Your task to perform on an android device: remove spam from my inbox in the gmail app Image 0: 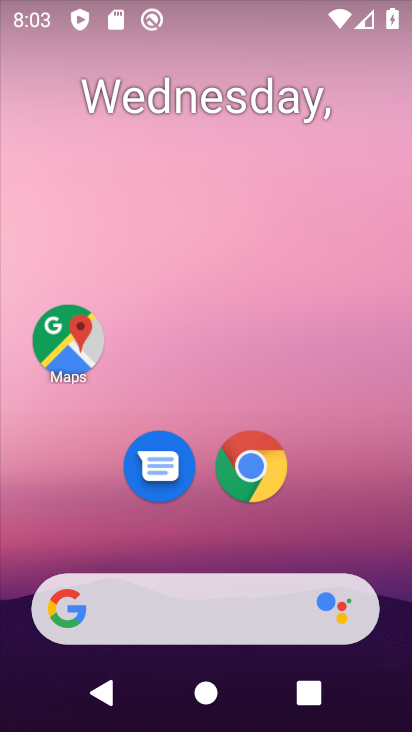
Step 0: drag from (201, 529) to (287, 0)
Your task to perform on an android device: remove spam from my inbox in the gmail app Image 1: 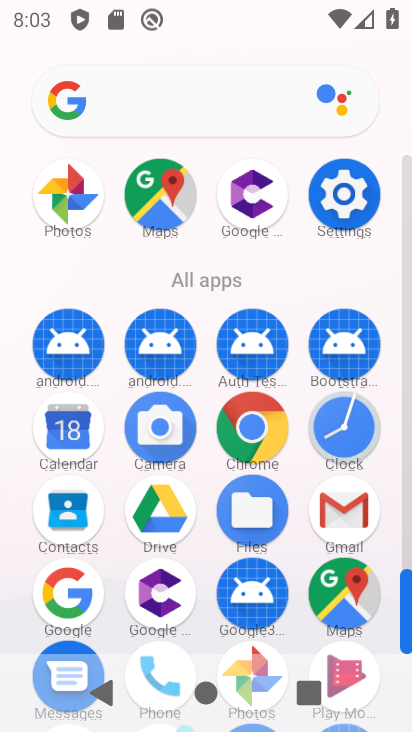
Step 1: click (355, 517)
Your task to perform on an android device: remove spam from my inbox in the gmail app Image 2: 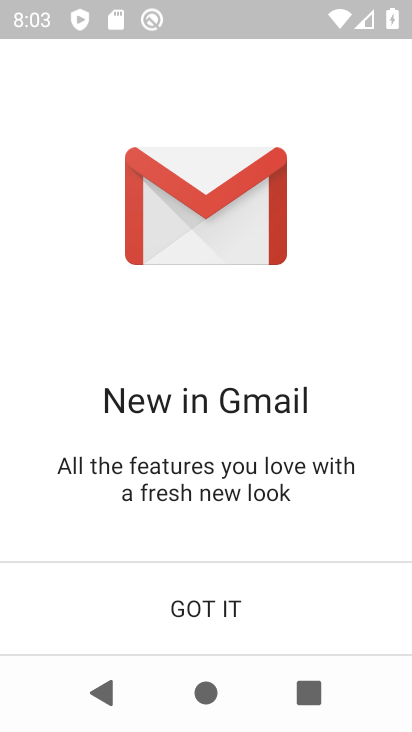
Step 2: click (204, 594)
Your task to perform on an android device: remove spam from my inbox in the gmail app Image 3: 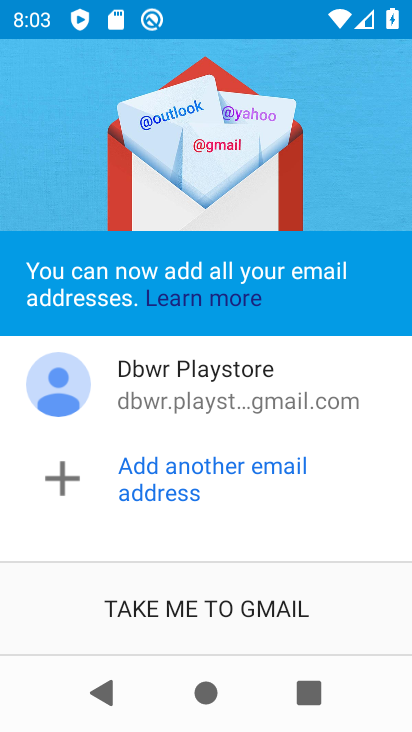
Step 3: click (204, 594)
Your task to perform on an android device: remove spam from my inbox in the gmail app Image 4: 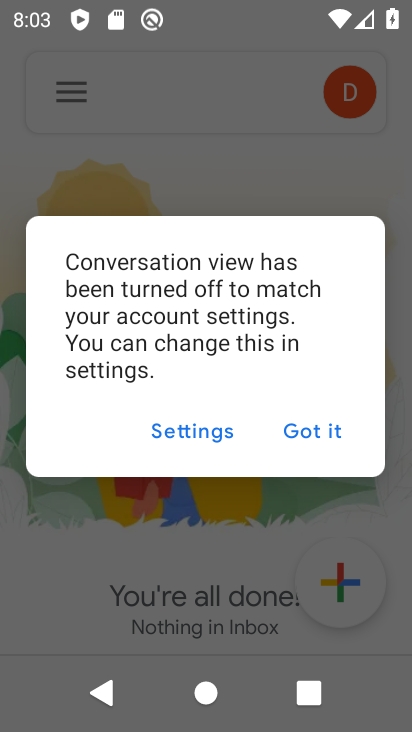
Step 4: click (315, 429)
Your task to perform on an android device: remove spam from my inbox in the gmail app Image 5: 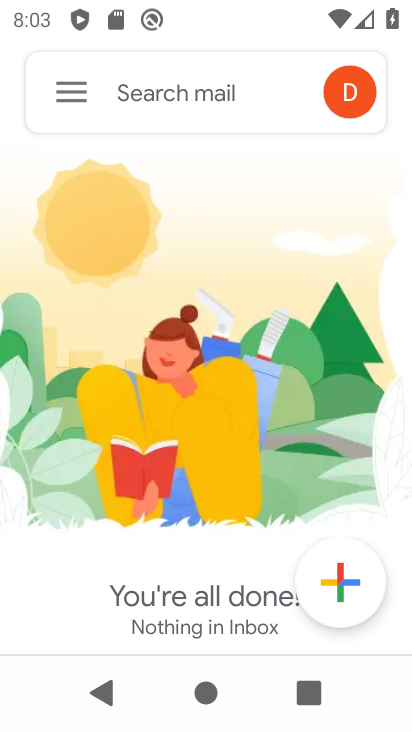
Step 5: click (72, 95)
Your task to perform on an android device: remove spam from my inbox in the gmail app Image 6: 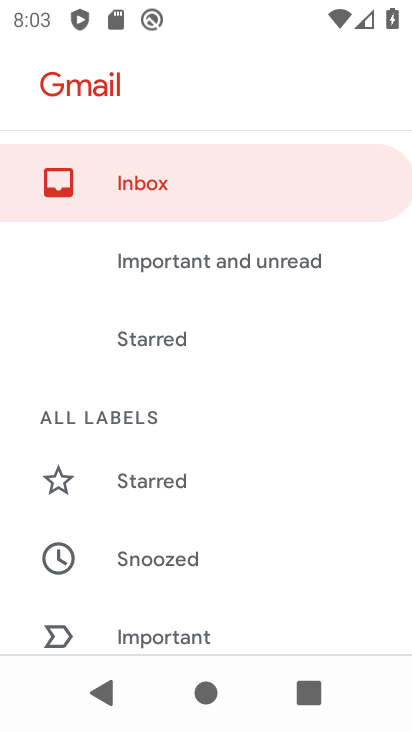
Step 6: drag from (146, 532) to (220, 173)
Your task to perform on an android device: remove spam from my inbox in the gmail app Image 7: 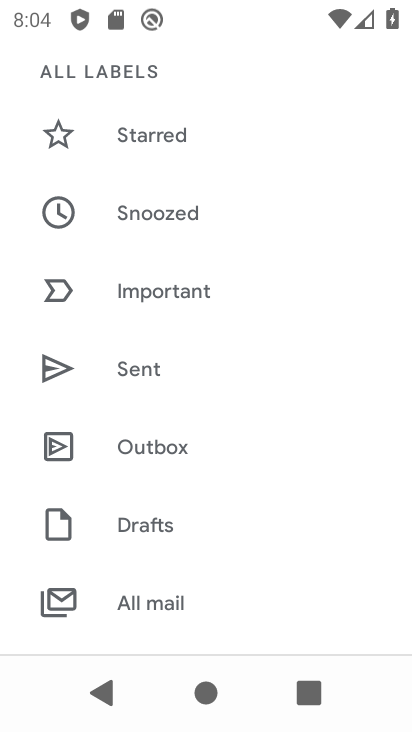
Step 7: drag from (155, 535) to (215, 153)
Your task to perform on an android device: remove spam from my inbox in the gmail app Image 8: 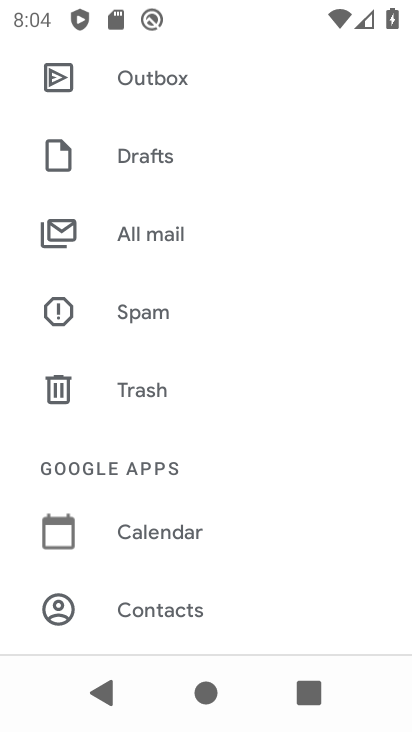
Step 8: click (168, 315)
Your task to perform on an android device: remove spam from my inbox in the gmail app Image 9: 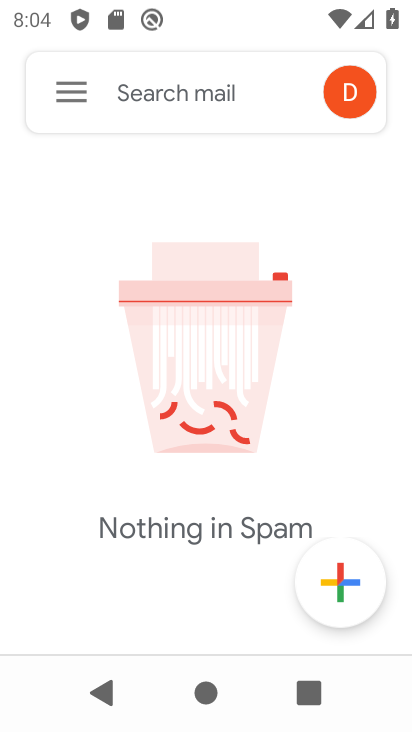
Step 9: task complete